Your task to perform on an android device: Search for Mexican restaurants on Maps Image 0: 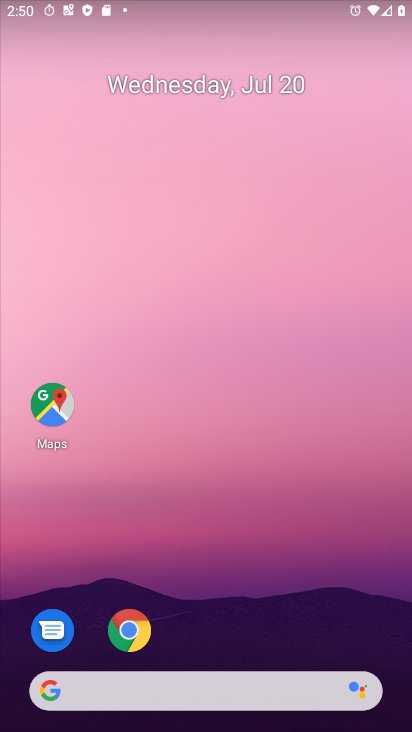
Step 0: press home button
Your task to perform on an android device: Search for Mexican restaurants on Maps Image 1: 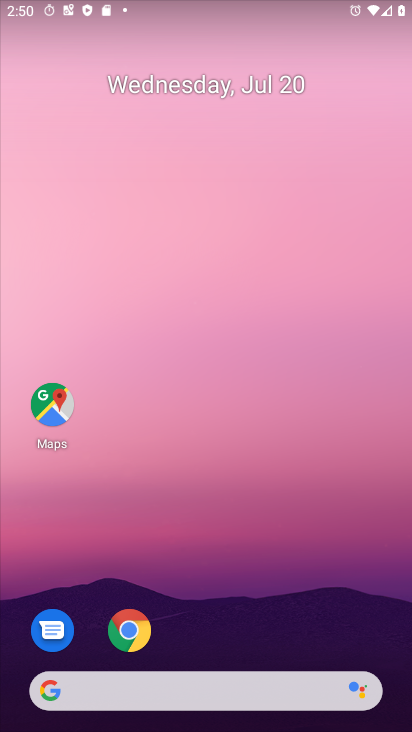
Step 1: click (46, 404)
Your task to perform on an android device: Search for Mexican restaurants on Maps Image 2: 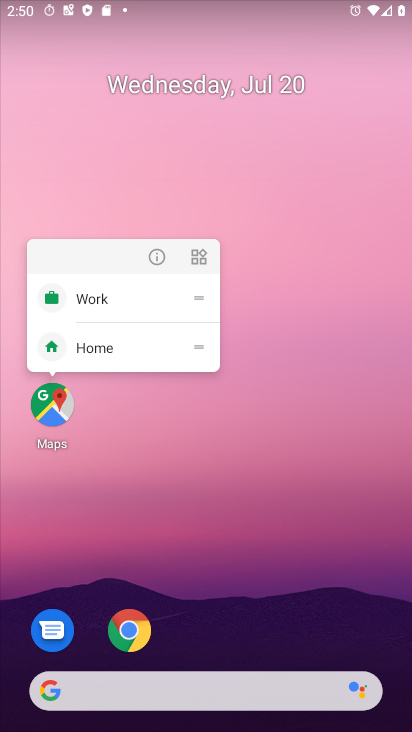
Step 2: click (51, 404)
Your task to perform on an android device: Search for Mexican restaurants on Maps Image 3: 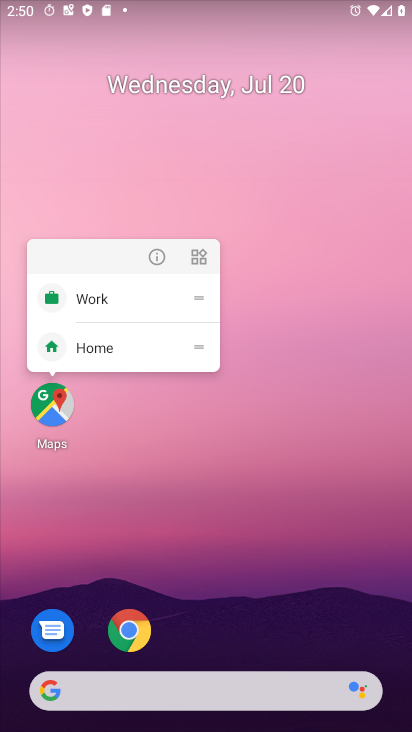
Step 3: click (51, 411)
Your task to perform on an android device: Search for Mexican restaurants on Maps Image 4: 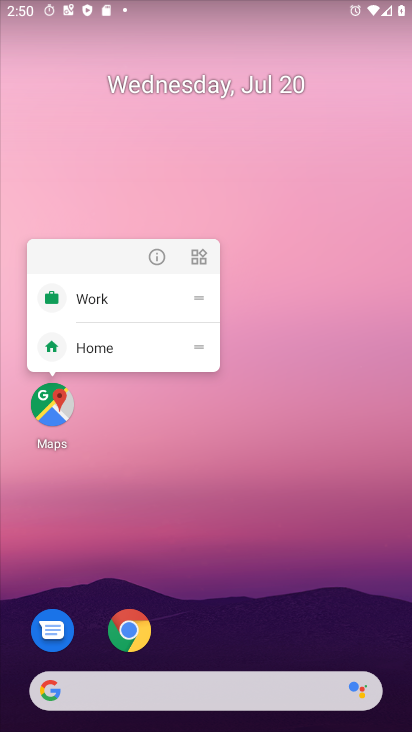
Step 4: click (53, 407)
Your task to perform on an android device: Search for Mexican restaurants on Maps Image 5: 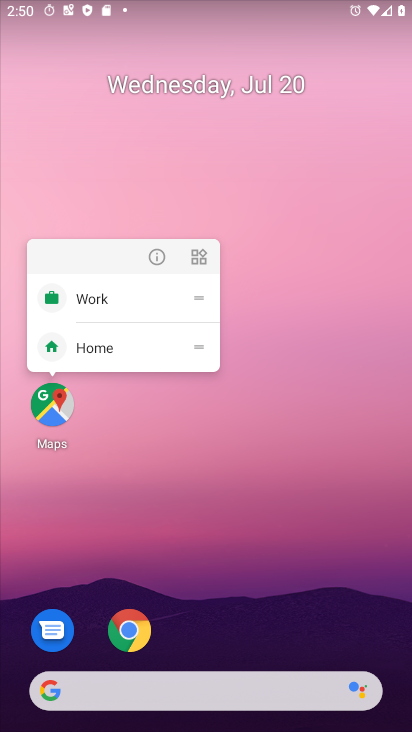
Step 5: click (53, 408)
Your task to perform on an android device: Search for Mexican restaurants on Maps Image 6: 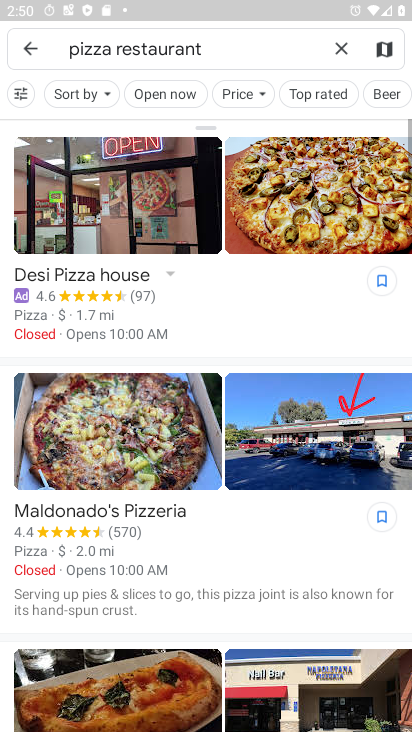
Step 6: click (339, 43)
Your task to perform on an android device: Search for Mexican restaurants on Maps Image 7: 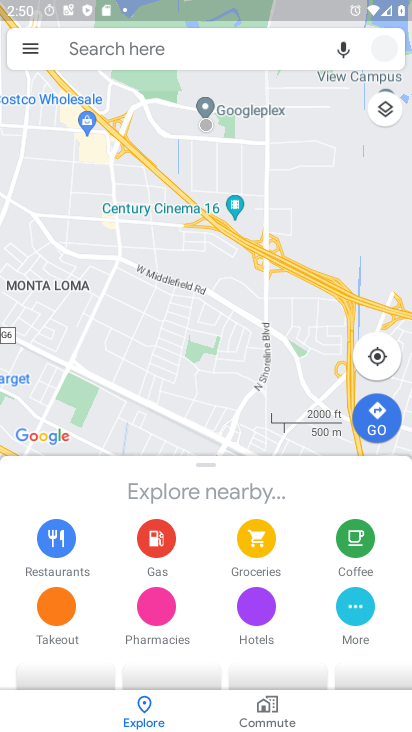
Step 7: click (154, 45)
Your task to perform on an android device: Search for Mexican restaurants on Maps Image 8: 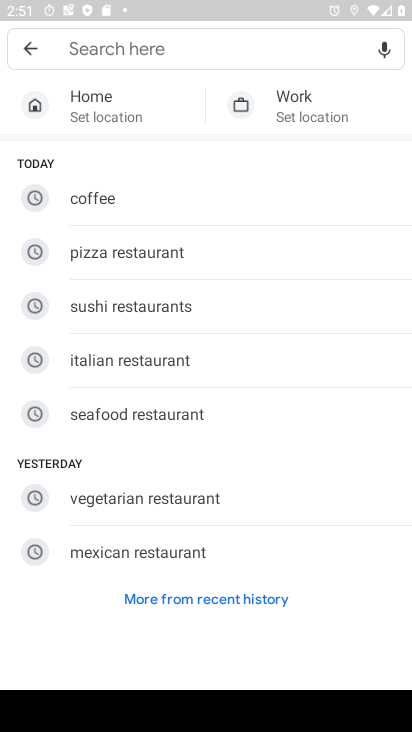
Step 8: click (124, 554)
Your task to perform on an android device: Search for Mexican restaurants on Maps Image 9: 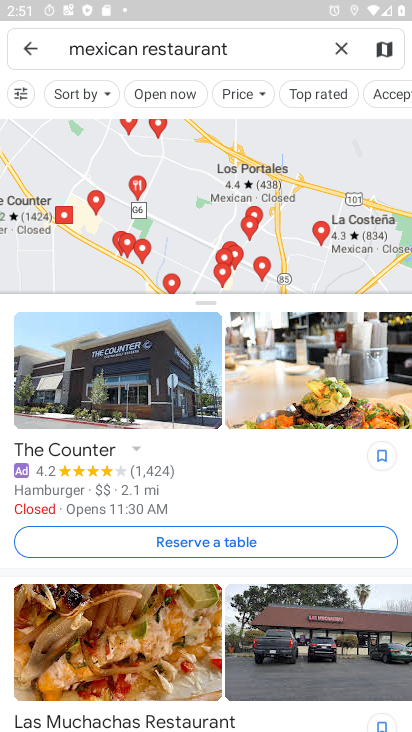
Step 9: task complete